Your task to perform on an android device: add a contact Image 0: 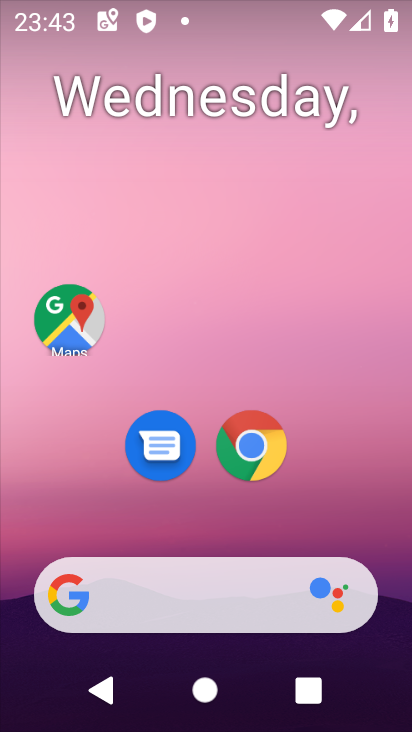
Step 0: drag from (318, 483) to (319, 239)
Your task to perform on an android device: add a contact Image 1: 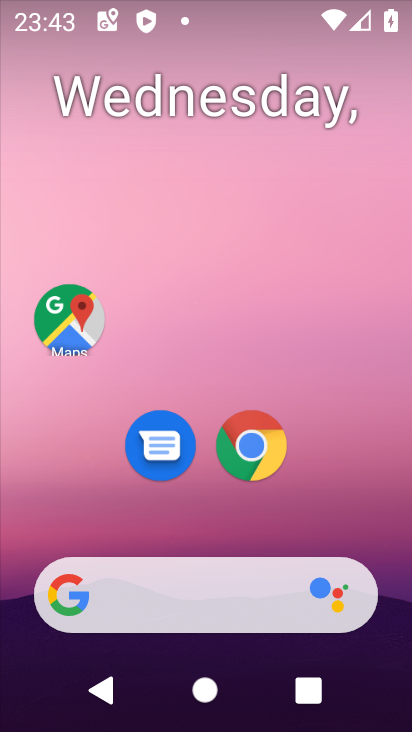
Step 1: drag from (257, 405) to (254, 198)
Your task to perform on an android device: add a contact Image 2: 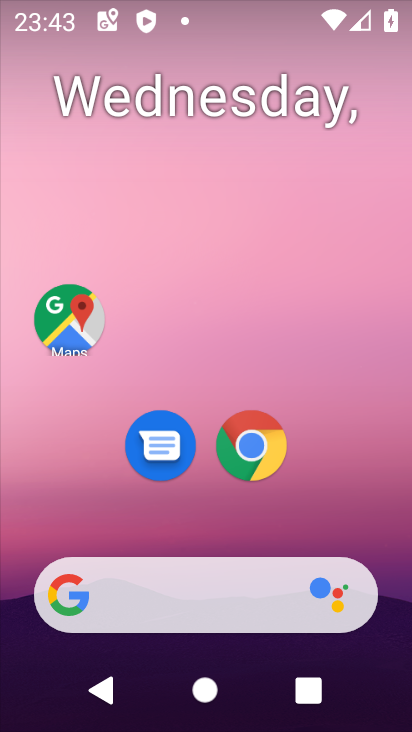
Step 2: click (269, 597)
Your task to perform on an android device: add a contact Image 3: 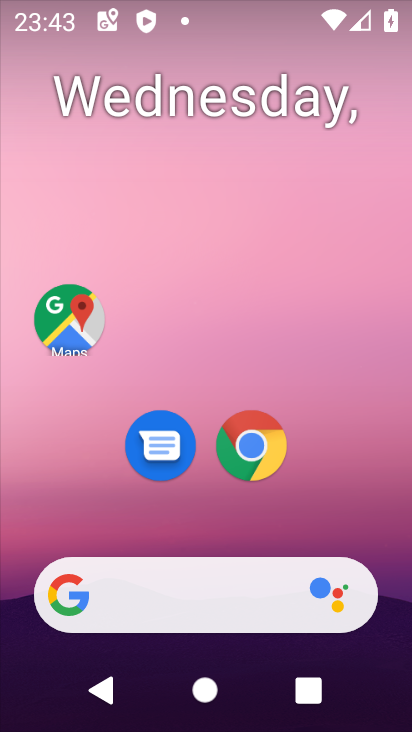
Step 3: drag from (270, 533) to (270, 221)
Your task to perform on an android device: add a contact Image 4: 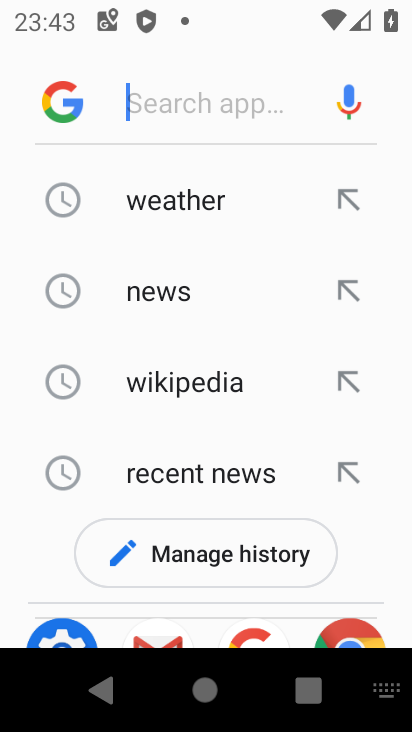
Step 4: press home button
Your task to perform on an android device: add a contact Image 5: 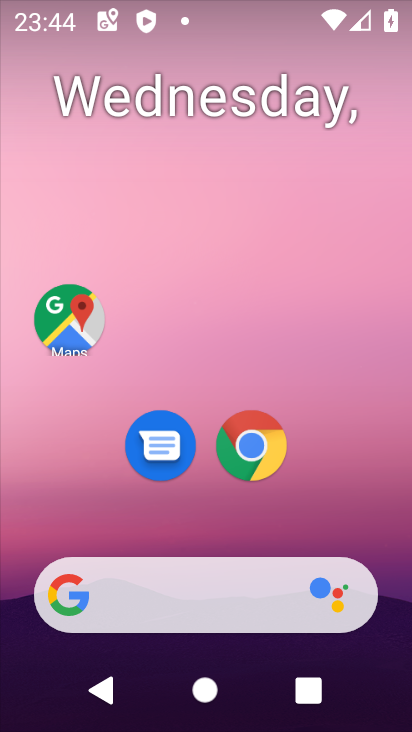
Step 5: drag from (319, 461) to (336, 211)
Your task to perform on an android device: add a contact Image 6: 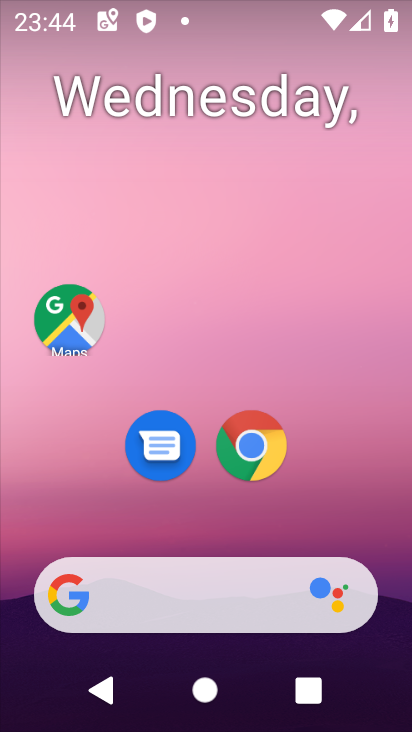
Step 6: drag from (266, 535) to (280, 196)
Your task to perform on an android device: add a contact Image 7: 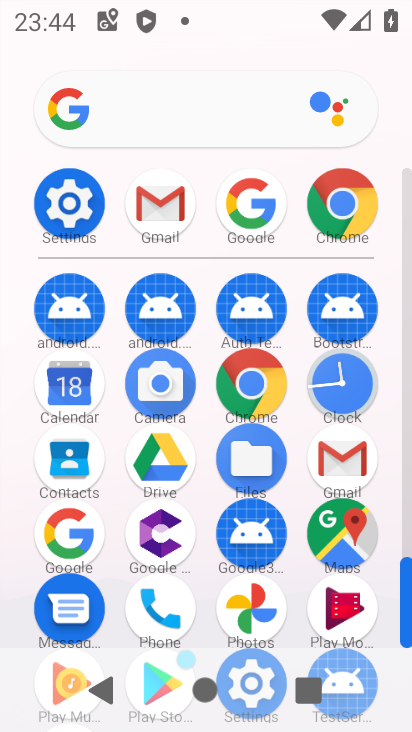
Step 7: drag from (280, 553) to (299, 217)
Your task to perform on an android device: add a contact Image 8: 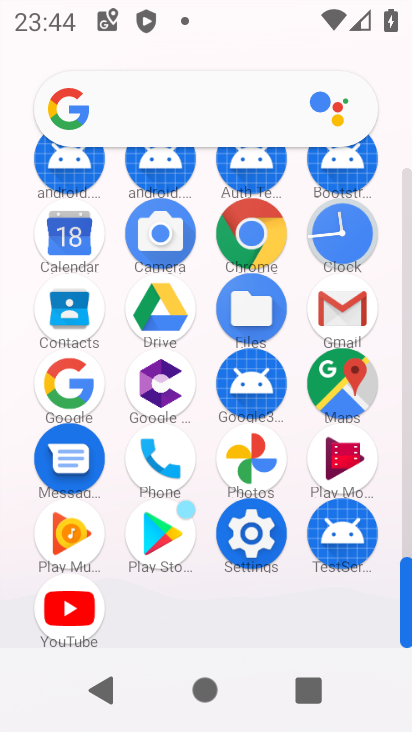
Step 8: click (149, 449)
Your task to perform on an android device: add a contact Image 9: 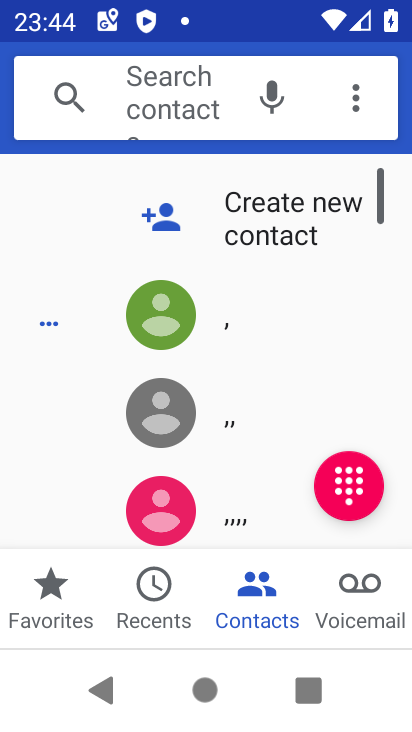
Step 9: click (271, 205)
Your task to perform on an android device: add a contact Image 10: 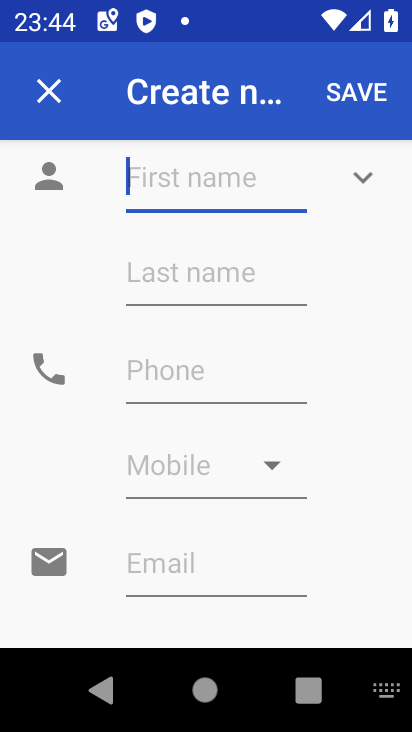
Step 10: click (216, 182)
Your task to perform on an android device: add a contact Image 11: 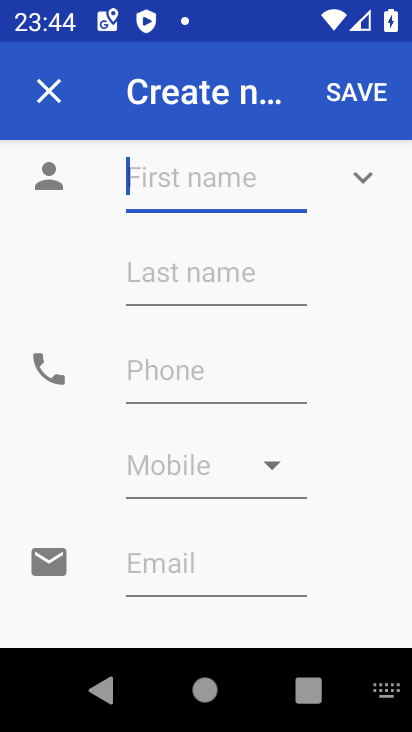
Step 11: click (241, 166)
Your task to perform on an android device: add a contact Image 12: 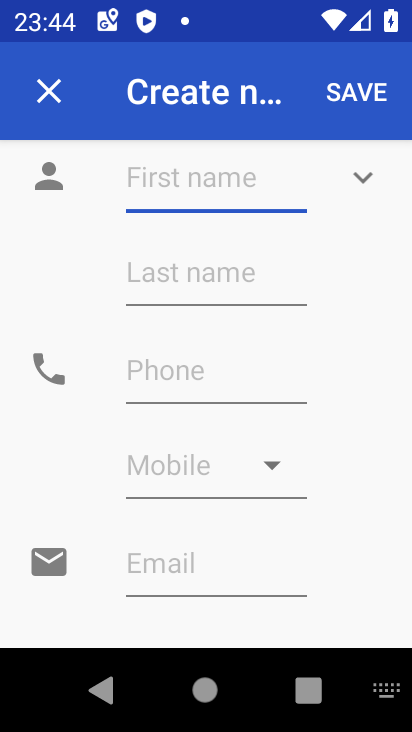
Step 12: type "nbbbbbn"
Your task to perform on an android device: add a contact Image 13: 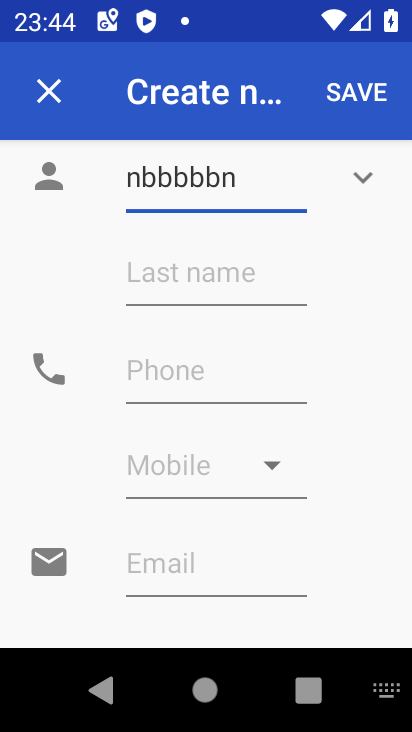
Step 13: click (216, 366)
Your task to perform on an android device: add a contact Image 14: 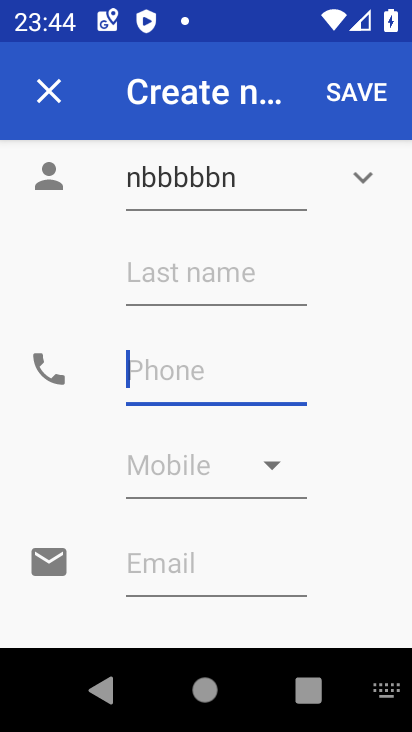
Step 14: type "0909090909"
Your task to perform on an android device: add a contact Image 15: 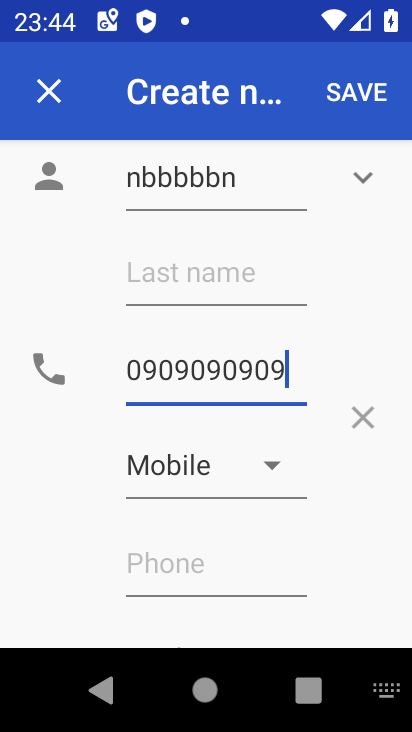
Step 15: click (353, 83)
Your task to perform on an android device: add a contact Image 16: 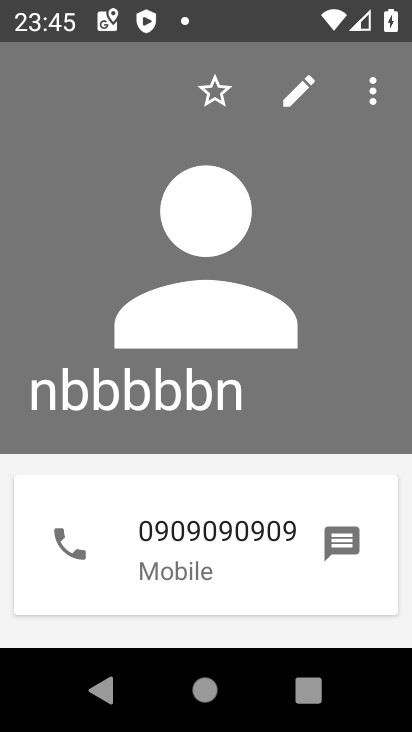
Step 16: task complete